Your task to perform on an android device: check data usage Image 0: 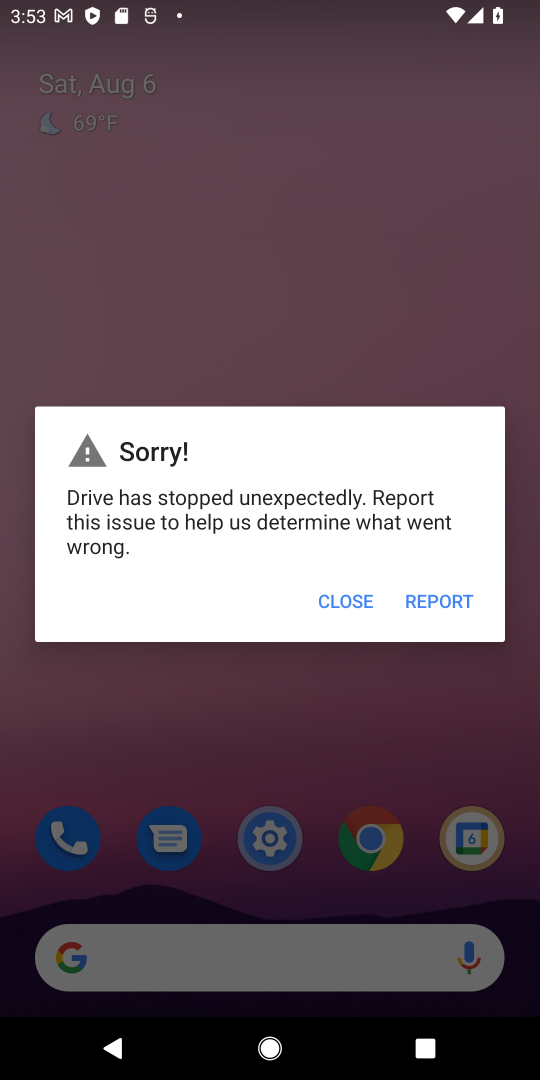
Step 0: press home button
Your task to perform on an android device: check data usage Image 1: 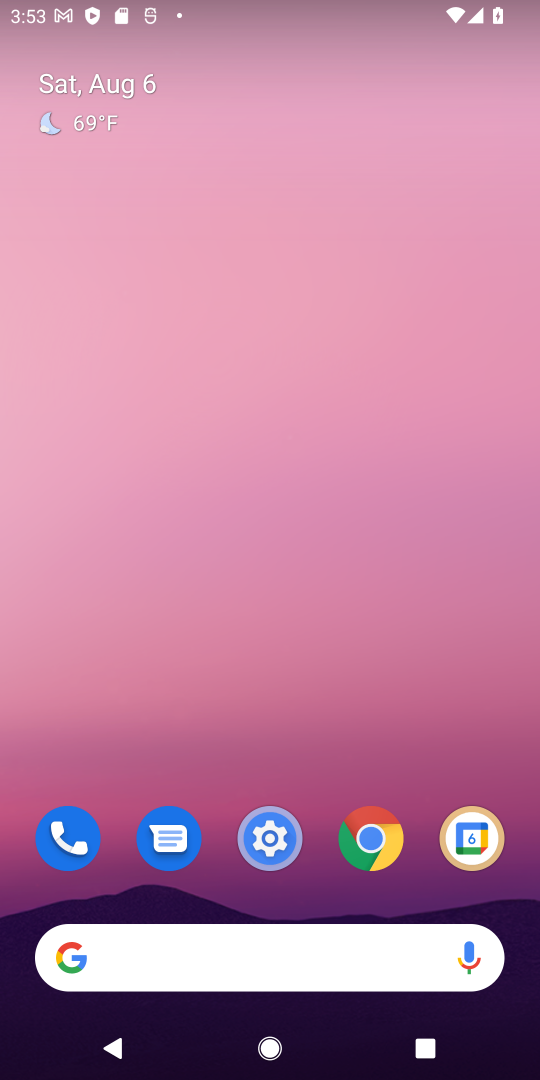
Step 1: drag from (130, 643) to (313, 194)
Your task to perform on an android device: check data usage Image 2: 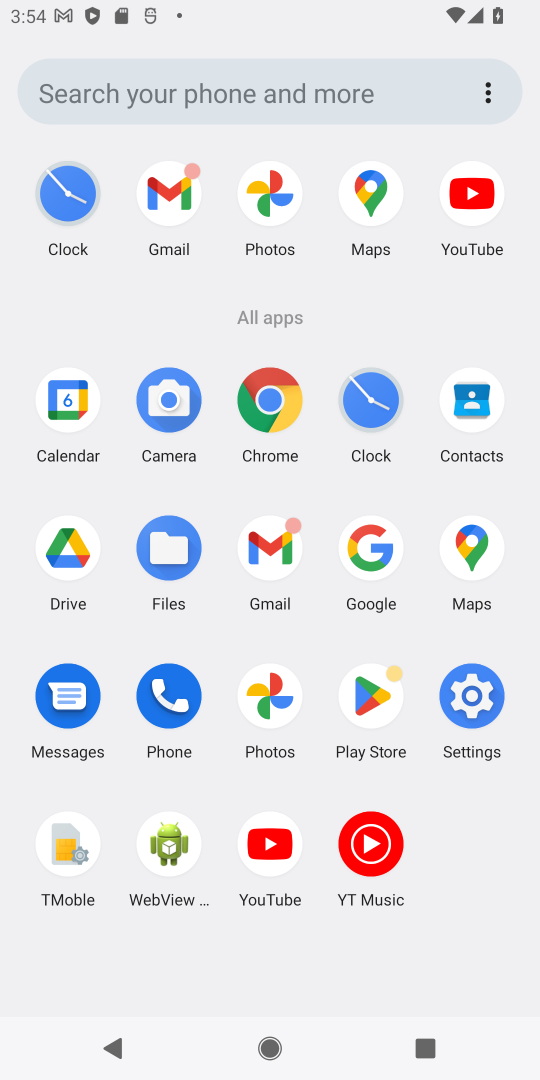
Step 2: click (492, 707)
Your task to perform on an android device: check data usage Image 3: 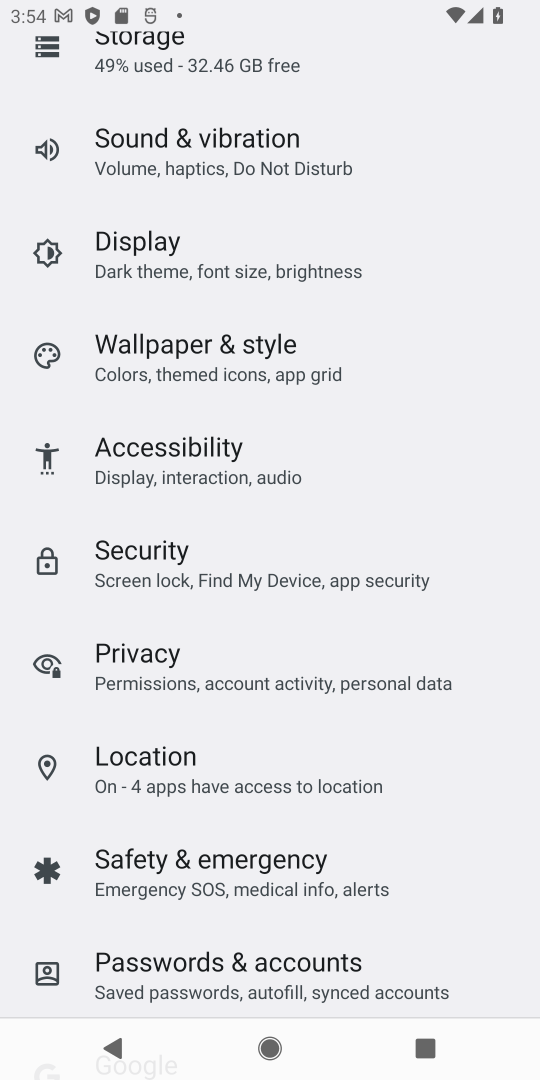
Step 3: drag from (324, 71) to (149, 744)
Your task to perform on an android device: check data usage Image 4: 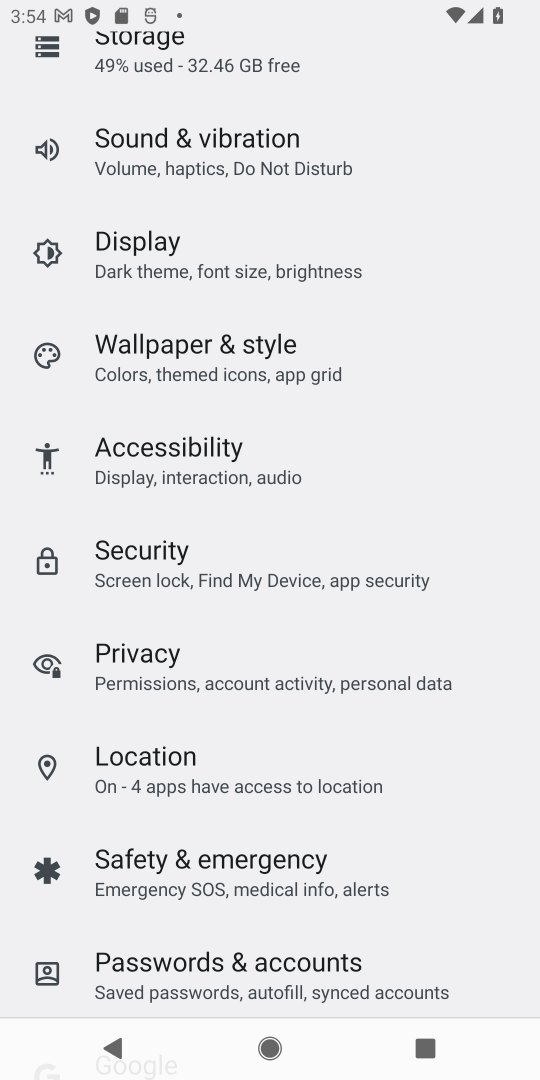
Step 4: drag from (367, 131) to (70, 835)
Your task to perform on an android device: check data usage Image 5: 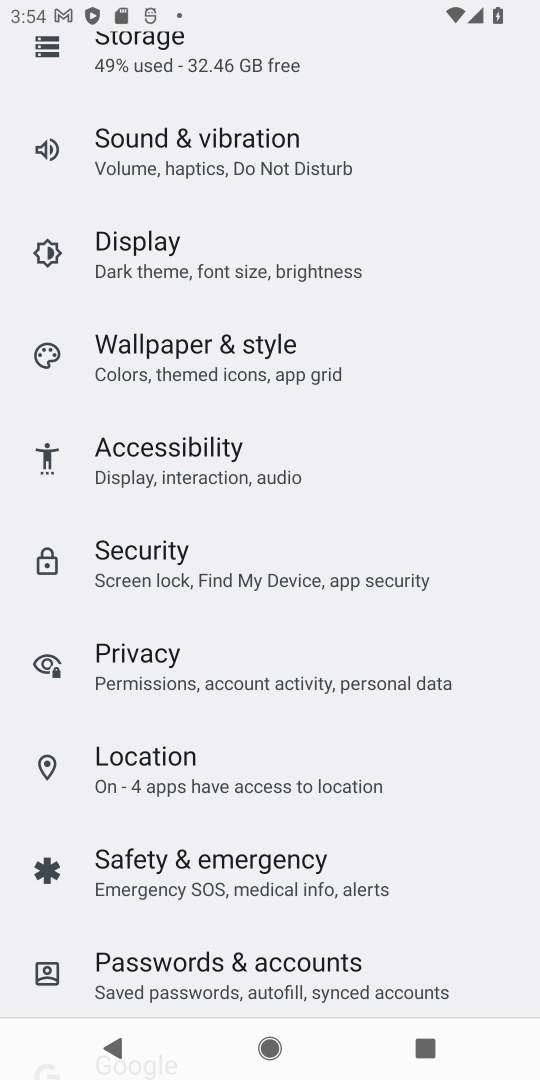
Step 5: drag from (283, 167) to (148, 752)
Your task to perform on an android device: check data usage Image 6: 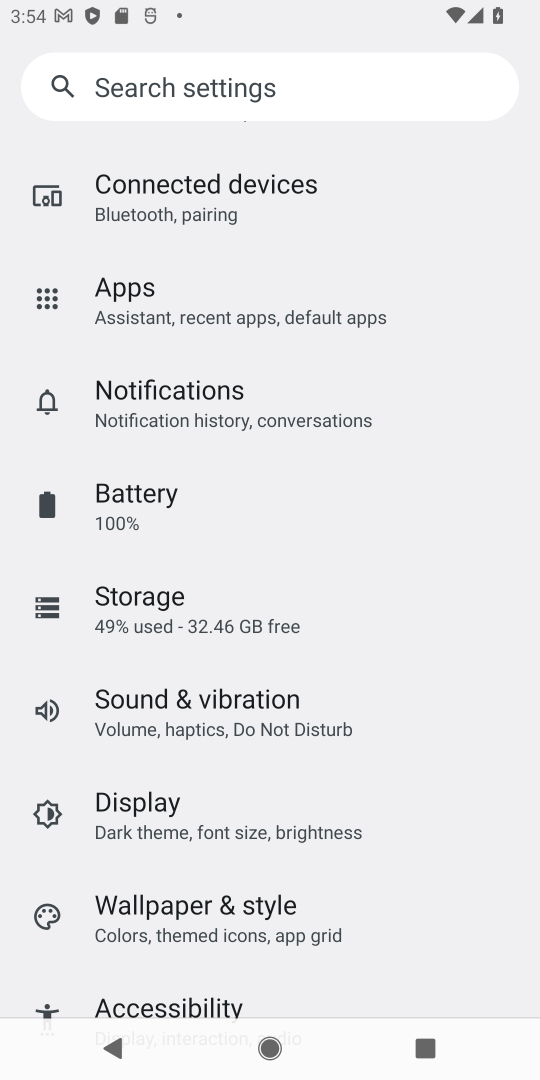
Step 6: drag from (133, 222) to (4, 757)
Your task to perform on an android device: check data usage Image 7: 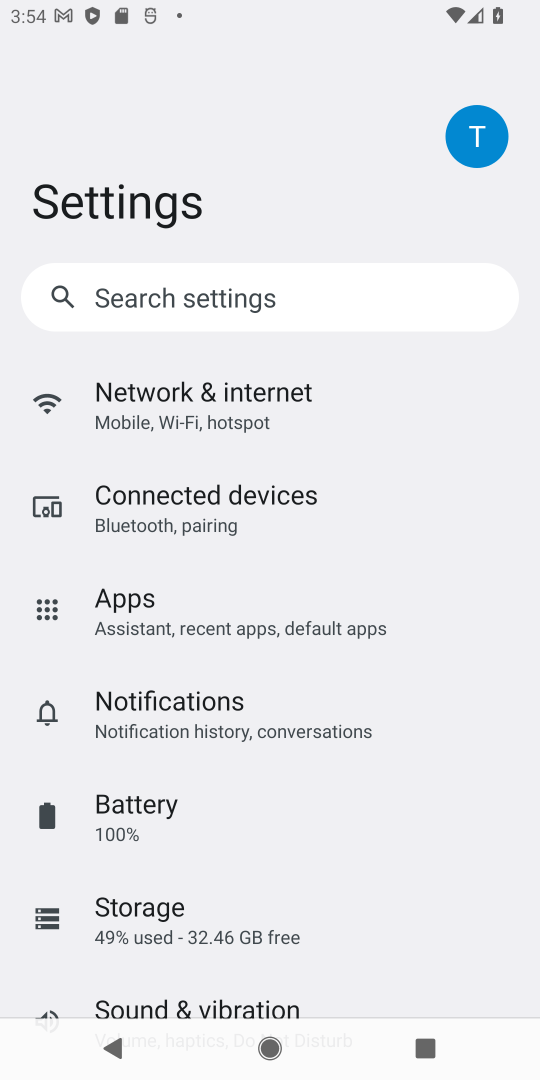
Step 7: click (288, 398)
Your task to perform on an android device: check data usage Image 8: 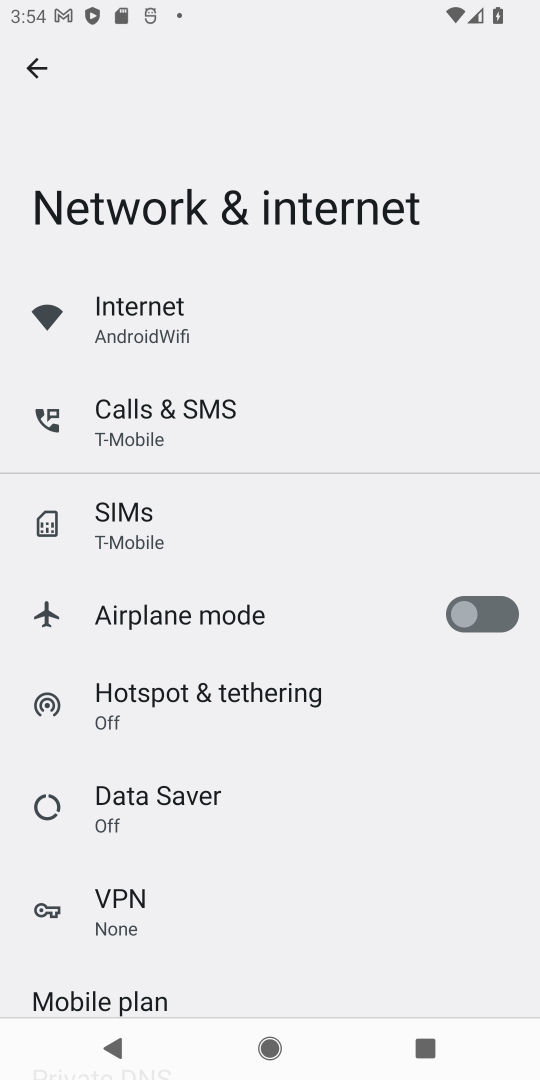
Step 8: click (132, 321)
Your task to perform on an android device: check data usage Image 9: 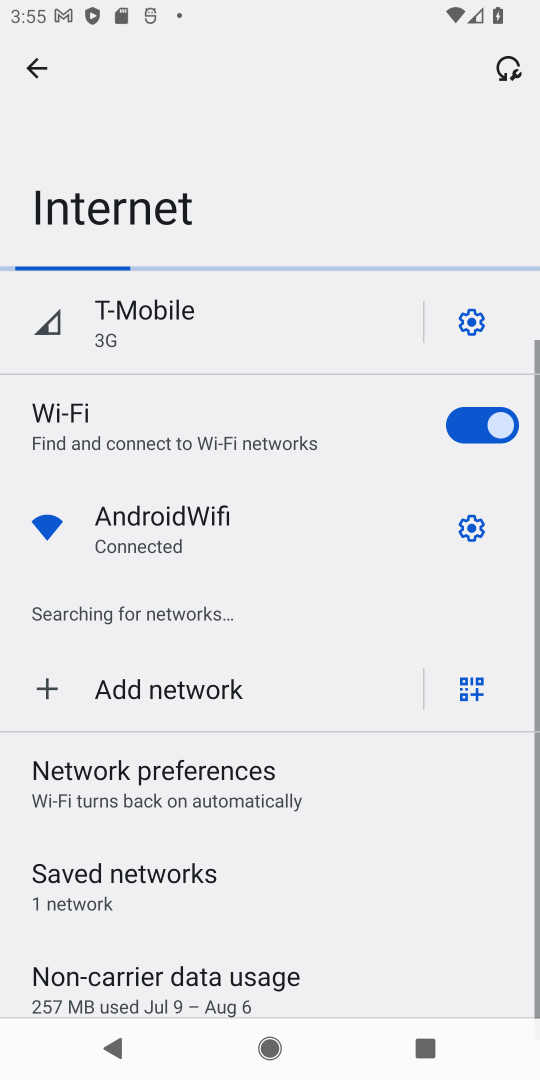
Step 9: task complete